Your task to perform on an android device: Go to Google Image 0: 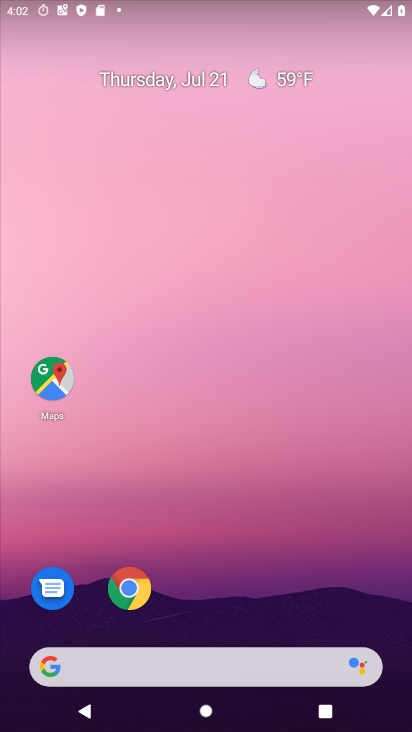
Step 0: click (46, 668)
Your task to perform on an android device: Go to Google Image 1: 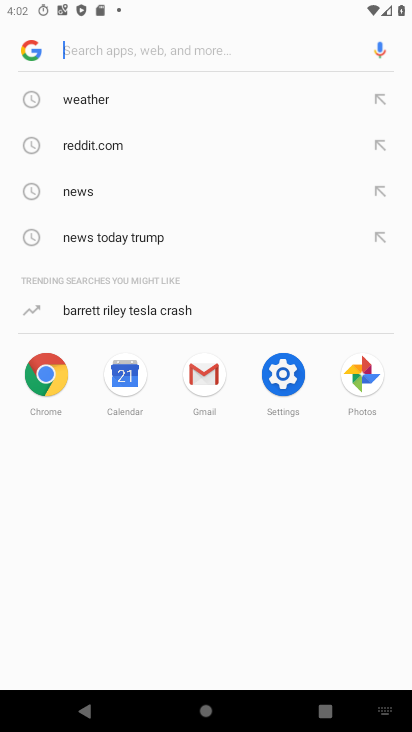
Step 1: click (34, 50)
Your task to perform on an android device: Go to Google Image 2: 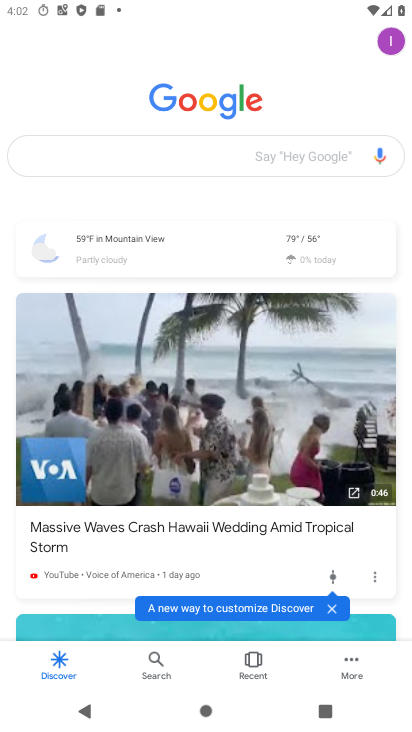
Step 2: task complete